Your task to perform on an android device: Who is the prime minister of the United Kingdom? Image 0: 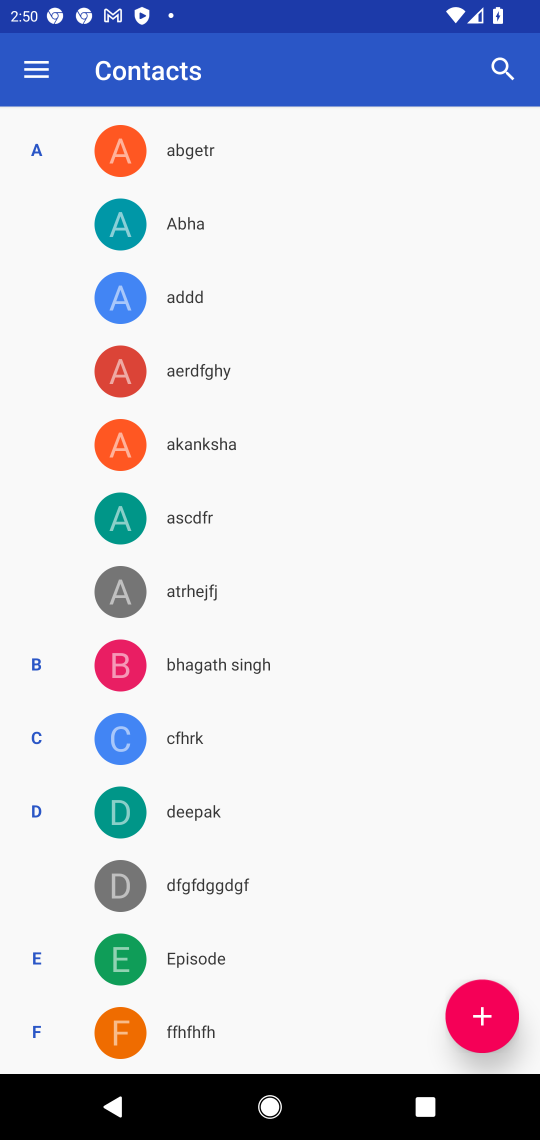
Step 0: press home button
Your task to perform on an android device: Who is the prime minister of the United Kingdom? Image 1: 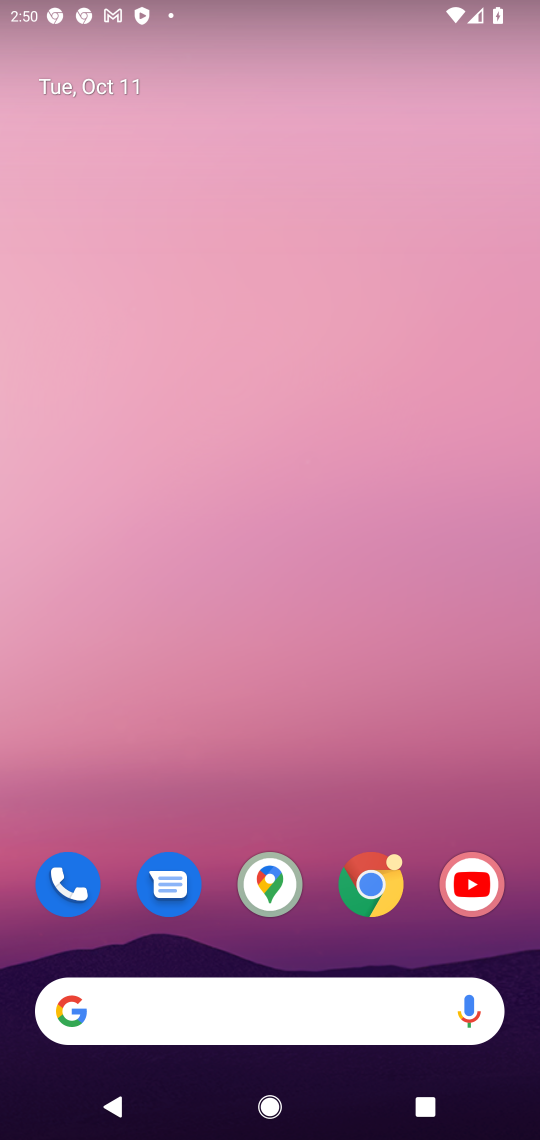
Step 1: click (370, 886)
Your task to perform on an android device: Who is the prime minister of the United Kingdom? Image 2: 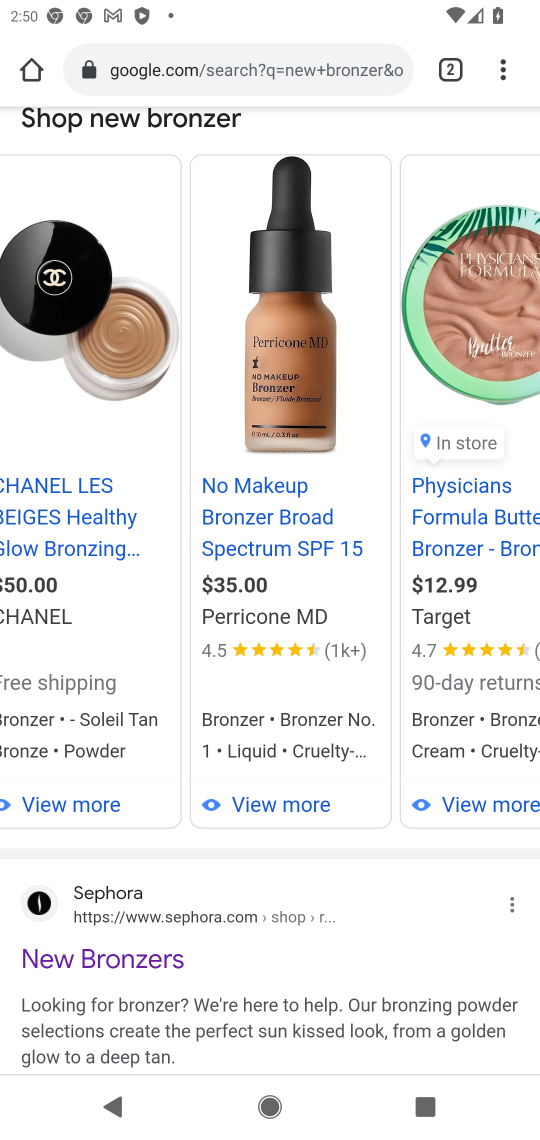
Step 2: click (348, 70)
Your task to perform on an android device: Who is the prime minister of the United Kingdom? Image 3: 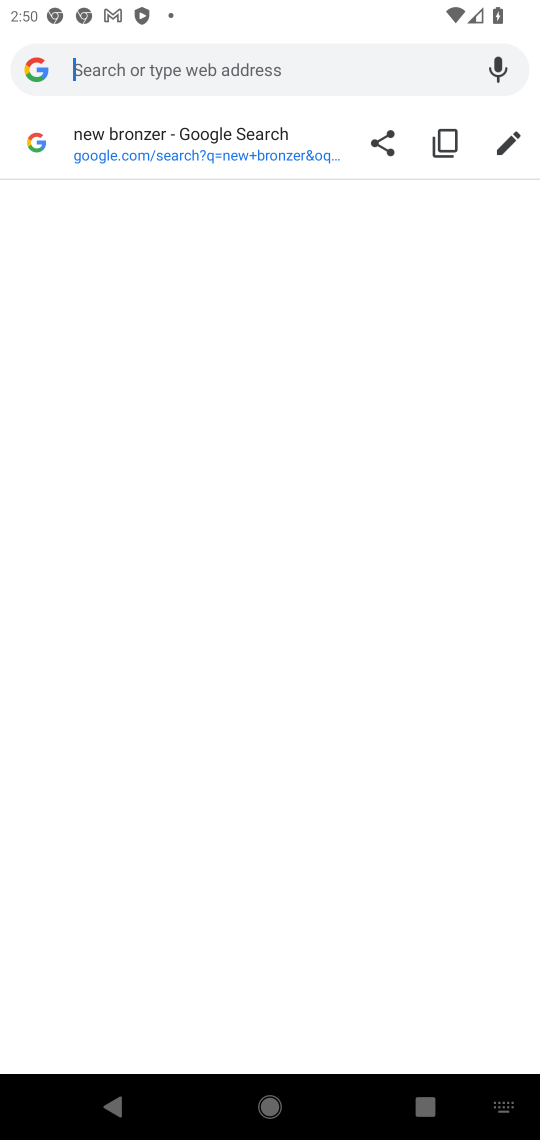
Step 3: type "who is the prime minister of the United Kingdom"
Your task to perform on an android device: Who is the prime minister of the United Kingdom? Image 4: 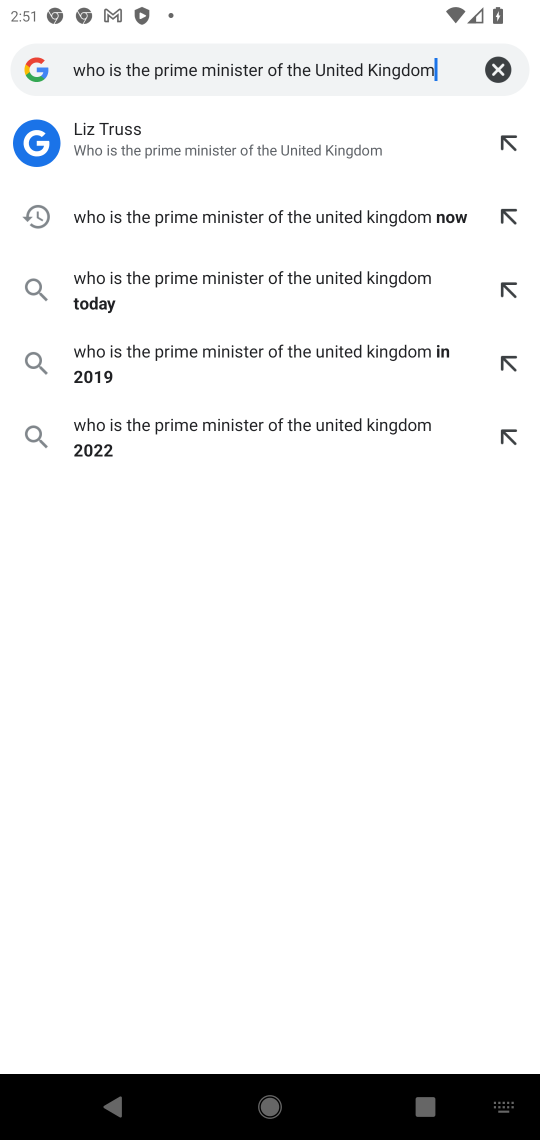
Step 4: click (206, 153)
Your task to perform on an android device: Who is the prime minister of the United Kingdom? Image 5: 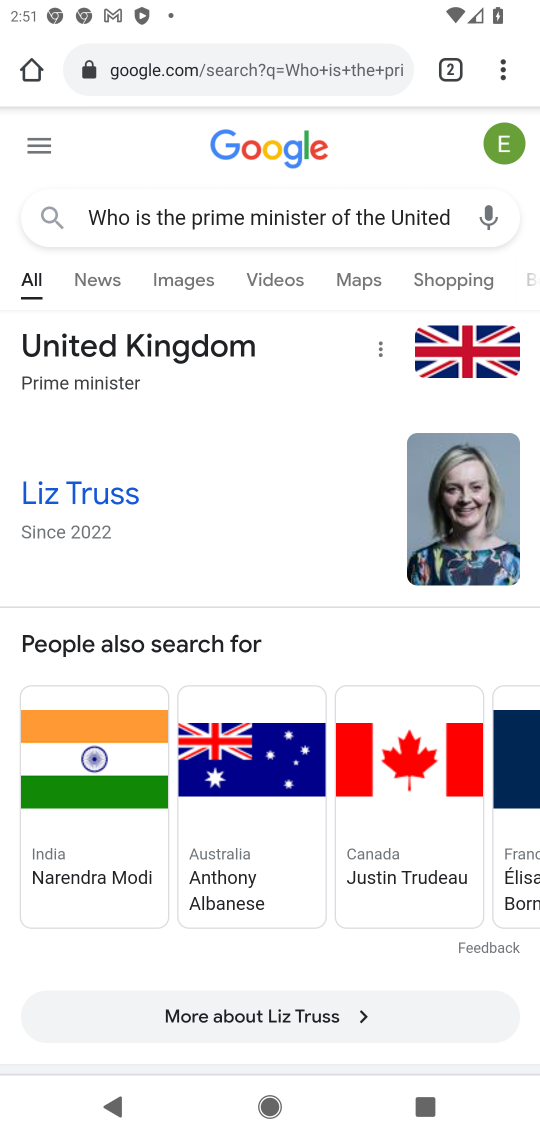
Step 5: task complete